Your task to perform on an android device: Go to Wikipedia Image 0: 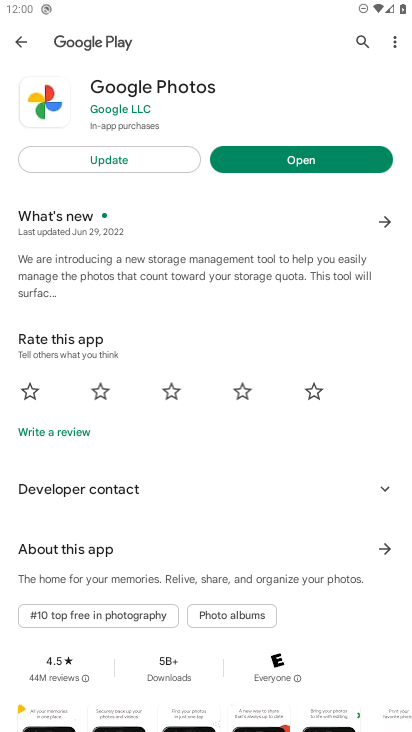
Step 0: press home button
Your task to perform on an android device: Go to Wikipedia Image 1: 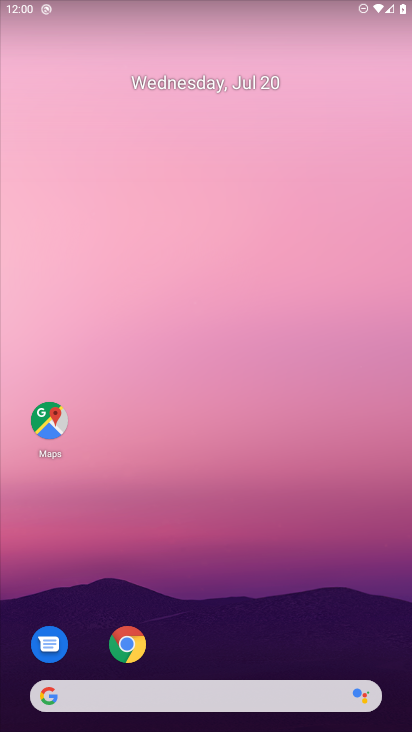
Step 1: click (89, 683)
Your task to perform on an android device: Go to Wikipedia Image 2: 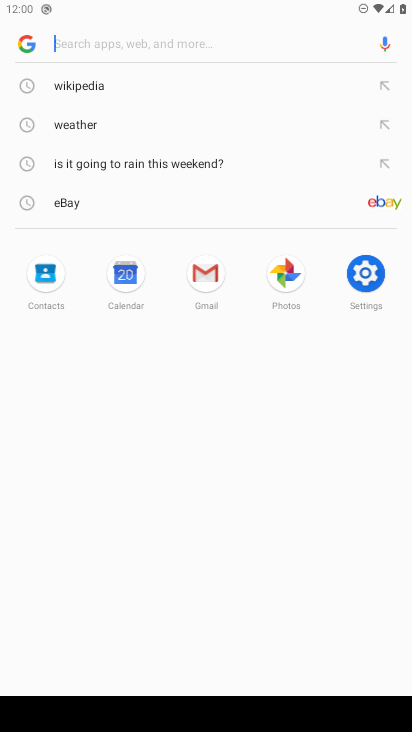
Step 2: click (87, 94)
Your task to perform on an android device: Go to Wikipedia Image 3: 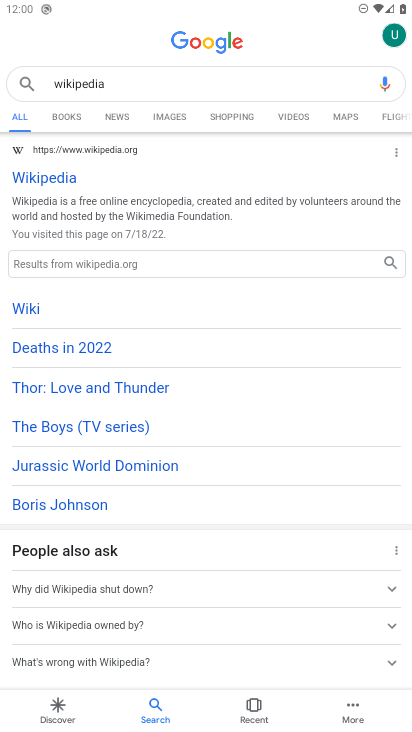
Step 3: task complete